Your task to perform on an android device: turn on translation in the chrome app Image 0: 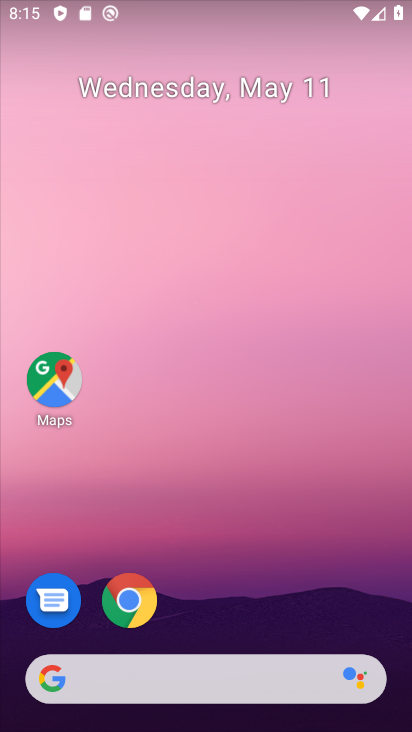
Step 0: drag from (225, 609) to (210, 206)
Your task to perform on an android device: turn on translation in the chrome app Image 1: 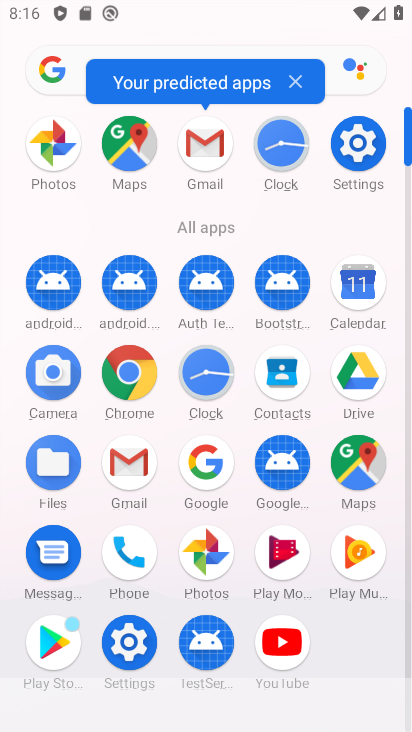
Step 1: click (130, 375)
Your task to perform on an android device: turn on translation in the chrome app Image 2: 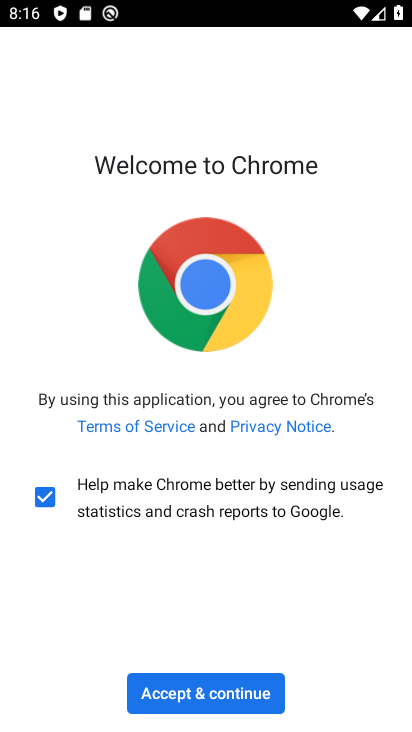
Step 2: click (186, 686)
Your task to perform on an android device: turn on translation in the chrome app Image 3: 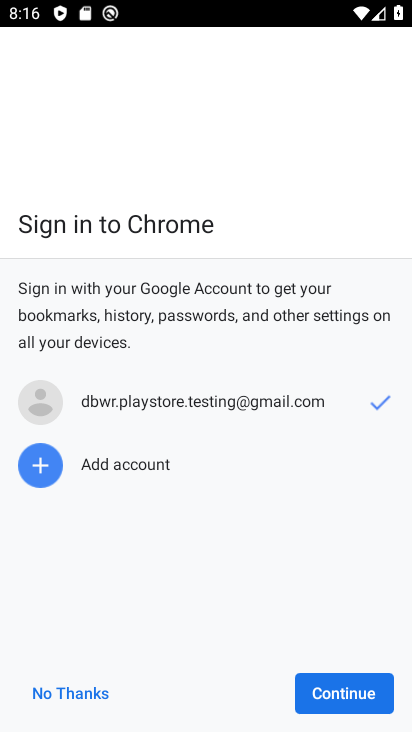
Step 3: click (332, 700)
Your task to perform on an android device: turn on translation in the chrome app Image 4: 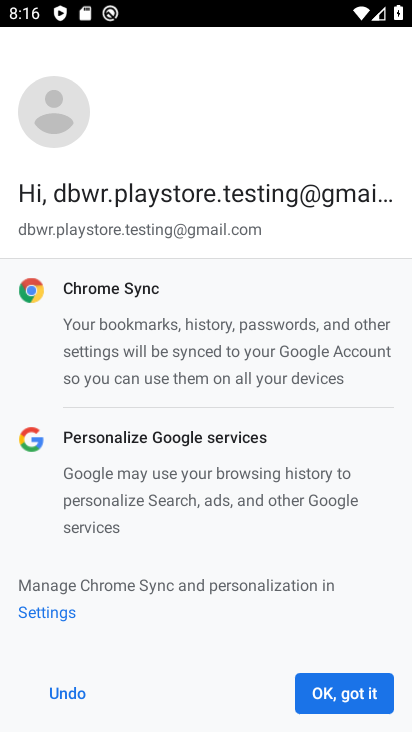
Step 4: click (332, 700)
Your task to perform on an android device: turn on translation in the chrome app Image 5: 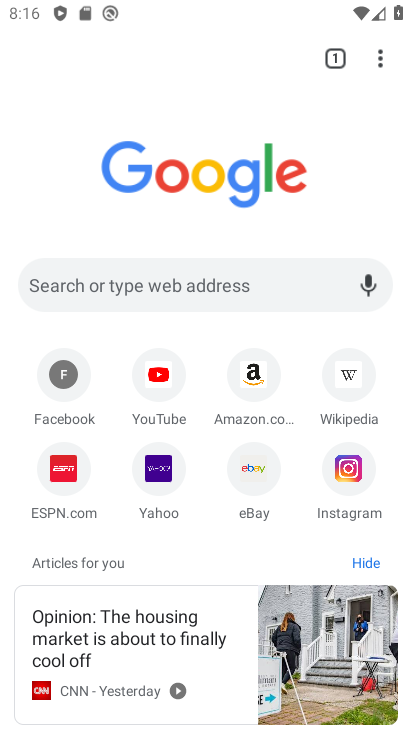
Step 5: click (375, 58)
Your task to perform on an android device: turn on translation in the chrome app Image 6: 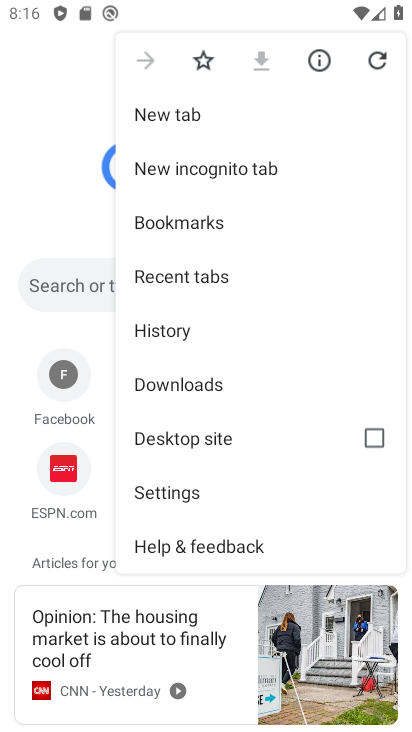
Step 6: click (224, 493)
Your task to perform on an android device: turn on translation in the chrome app Image 7: 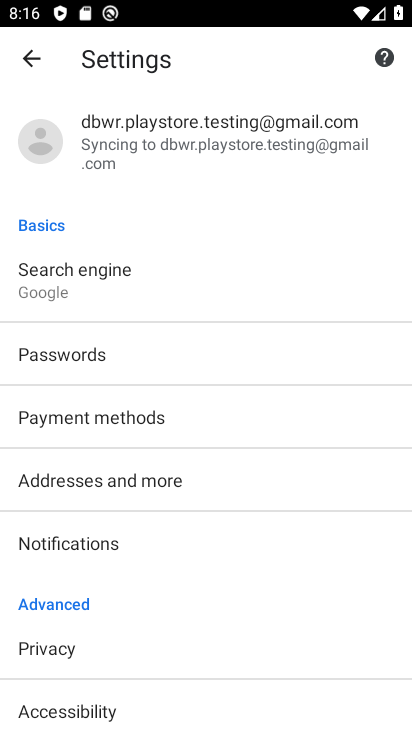
Step 7: drag from (224, 584) to (214, 129)
Your task to perform on an android device: turn on translation in the chrome app Image 8: 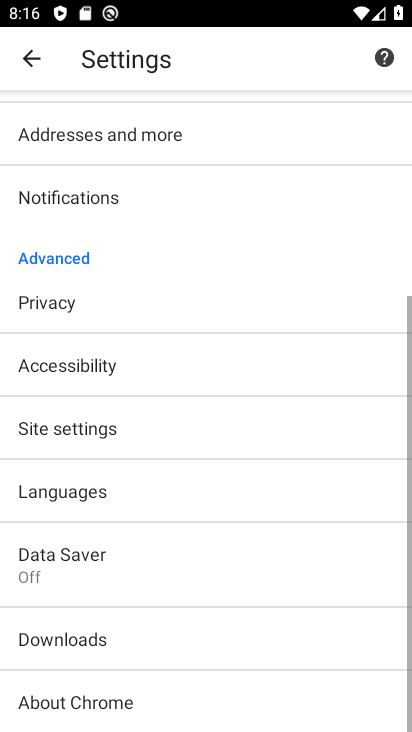
Step 8: click (101, 486)
Your task to perform on an android device: turn on translation in the chrome app Image 9: 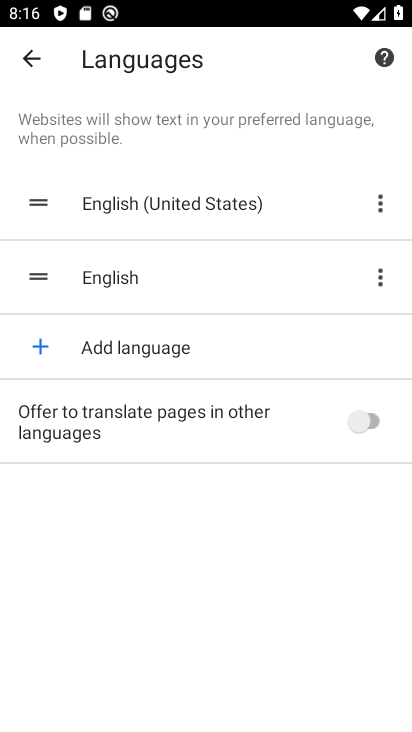
Step 9: click (358, 421)
Your task to perform on an android device: turn on translation in the chrome app Image 10: 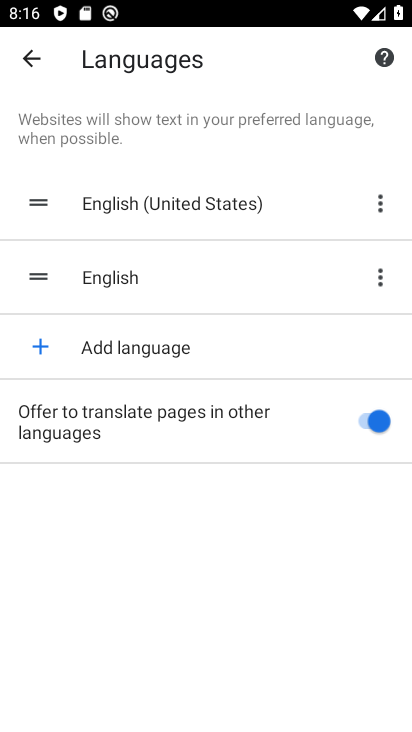
Step 10: task complete